Your task to perform on an android device: toggle translation in the chrome app Image 0: 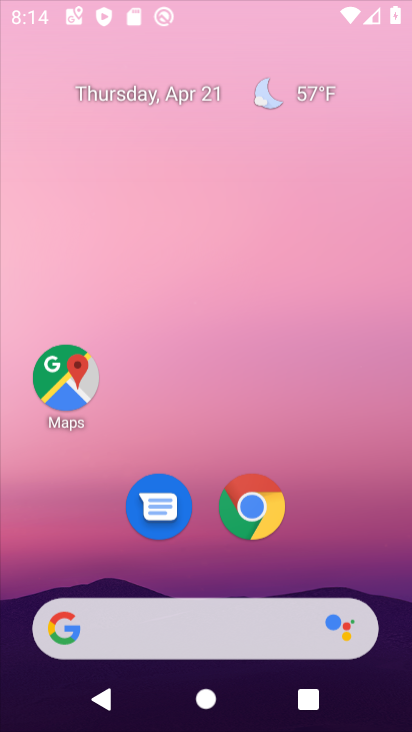
Step 0: click (250, 502)
Your task to perform on an android device: toggle translation in the chrome app Image 1: 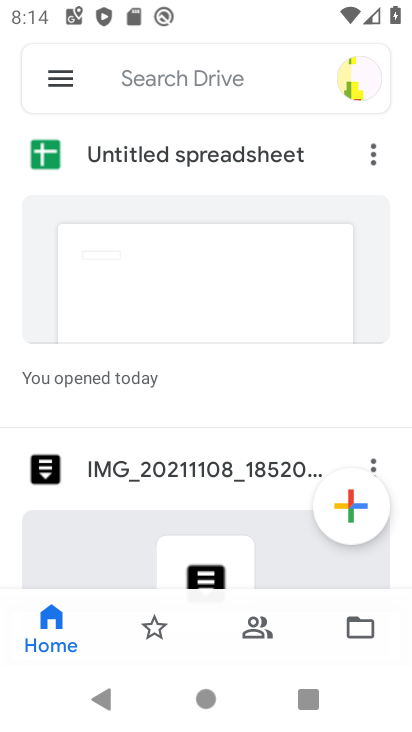
Step 1: press home button
Your task to perform on an android device: toggle translation in the chrome app Image 2: 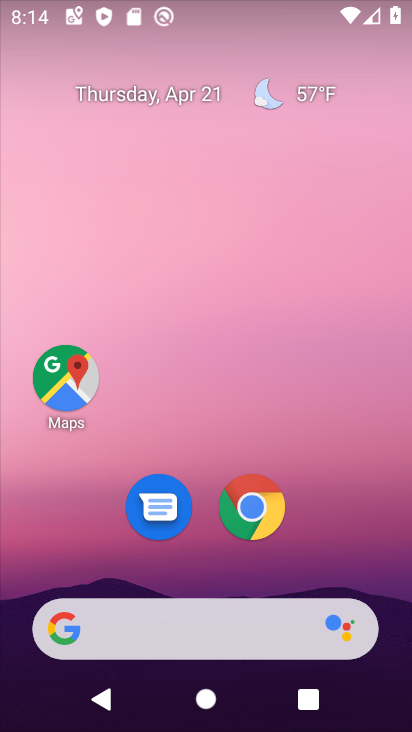
Step 2: click (257, 505)
Your task to perform on an android device: toggle translation in the chrome app Image 3: 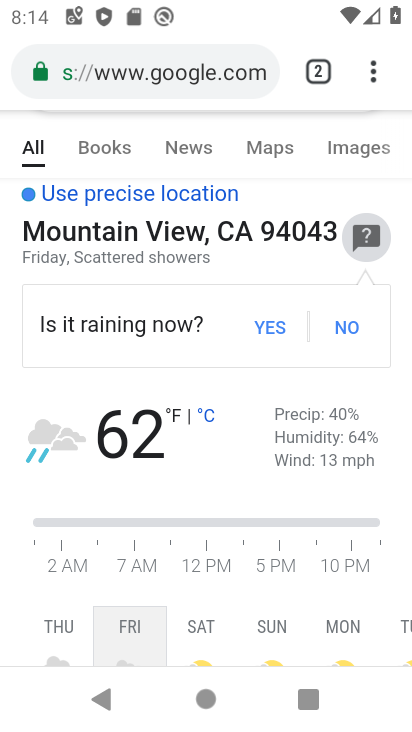
Step 3: drag from (374, 70) to (132, 505)
Your task to perform on an android device: toggle translation in the chrome app Image 4: 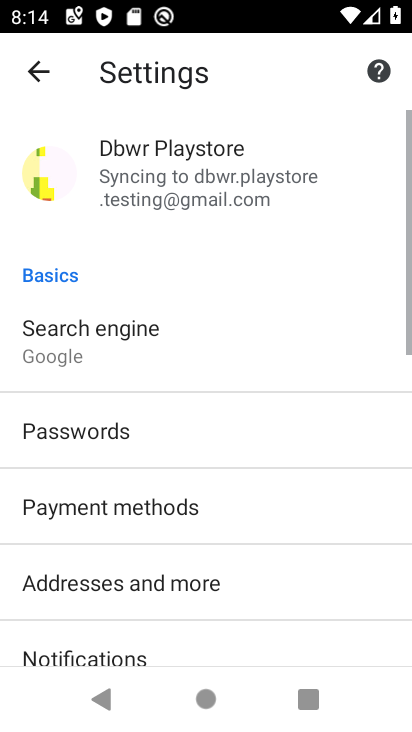
Step 4: drag from (282, 515) to (260, 94)
Your task to perform on an android device: toggle translation in the chrome app Image 5: 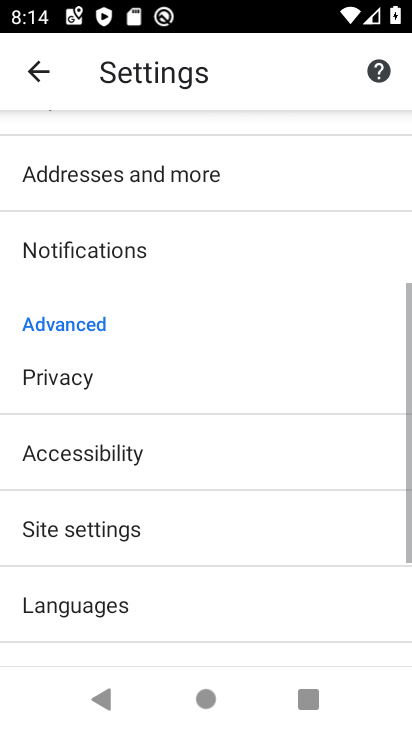
Step 5: drag from (302, 654) to (289, 491)
Your task to perform on an android device: toggle translation in the chrome app Image 6: 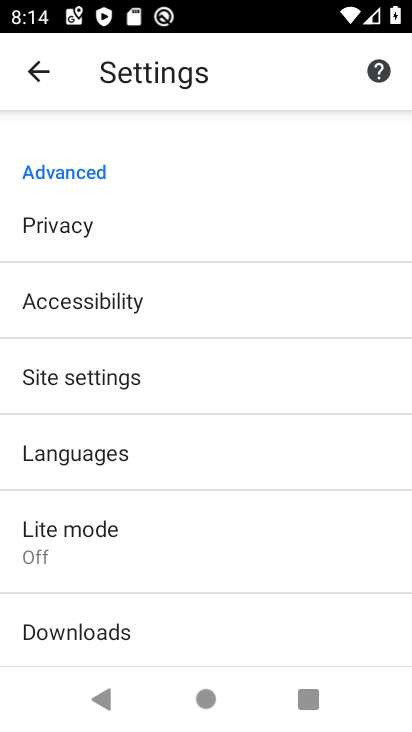
Step 6: click (159, 452)
Your task to perform on an android device: toggle translation in the chrome app Image 7: 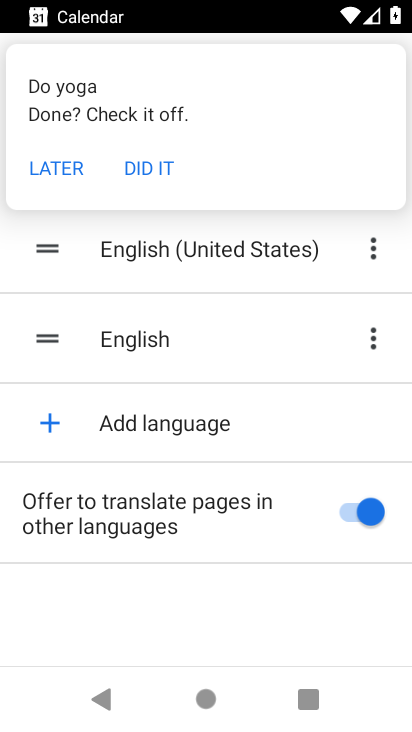
Step 7: click (266, 536)
Your task to perform on an android device: toggle translation in the chrome app Image 8: 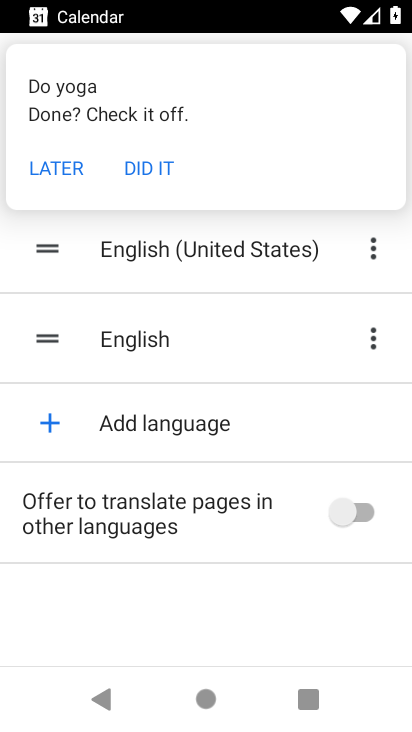
Step 8: task complete